Your task to perform on an android device: Search for sushi restaurants on Maps Image 0: 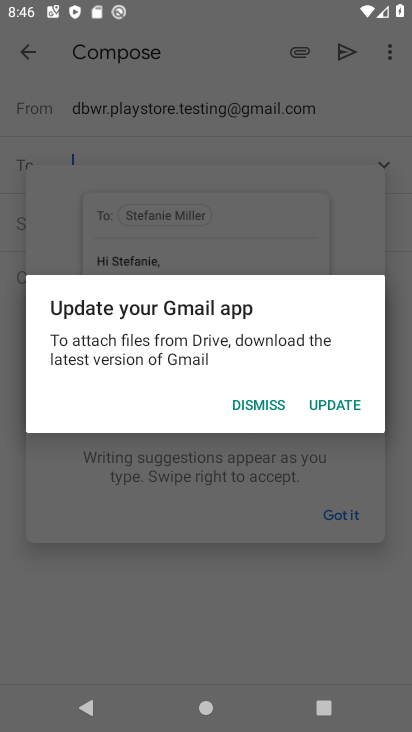
Step 0: press home button
Your task to perform on an android device: Search for sushi restaurants on Maps Image 1: 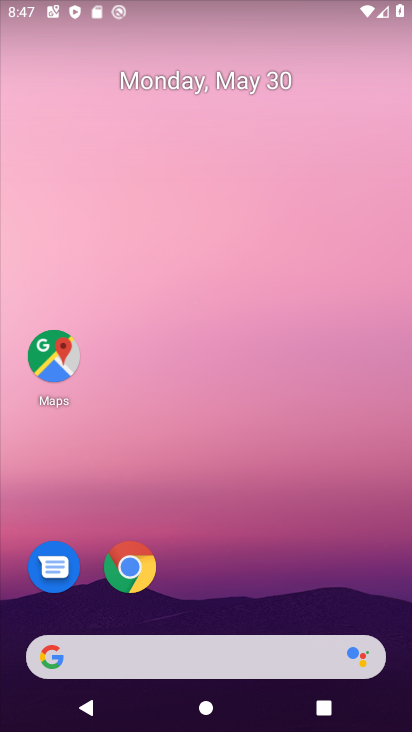
Step 1: drag from (241, 598) to (206, 162)
Your task to perform on an android device: Search for sushi restaurants on Maps Image 2: 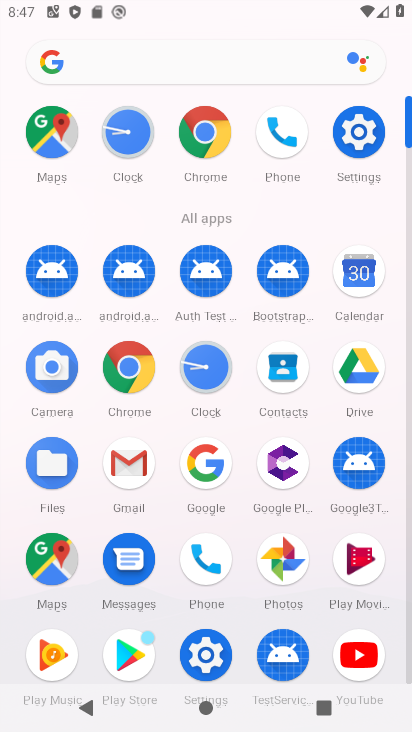
Step 2: click (49, 145)
Your task to perform on an android device: Search for sushi restaurants on Maps Image 3: 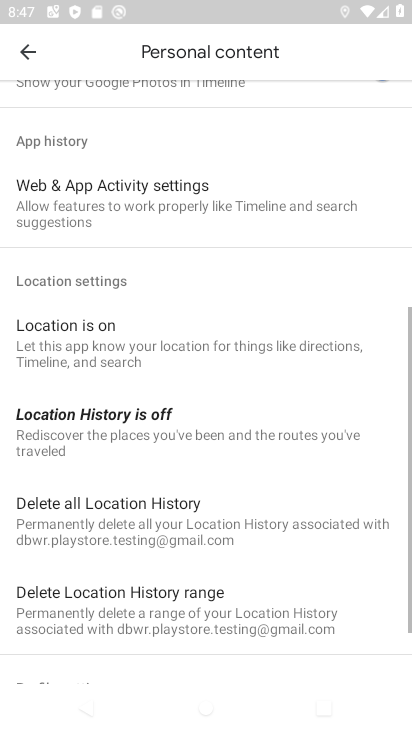
Step 3: click (19, 45)
Your task to perform on an android device: Search for sushi restaurants on Maps Image 4: 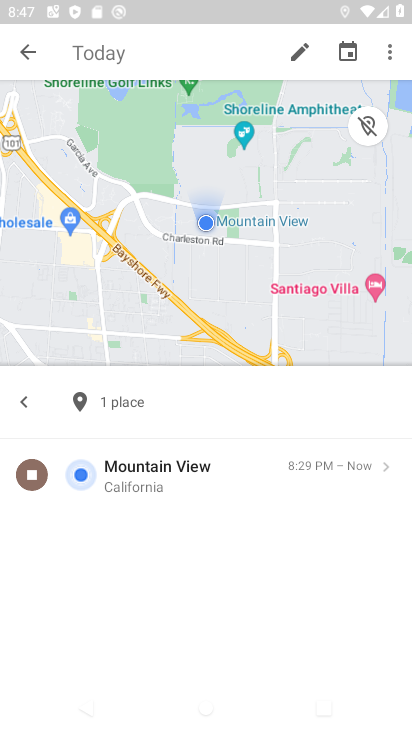
Step 4: click (17, 61)
Your task to perform on an android device: Search for sushi restaurants on Maps Image 5: 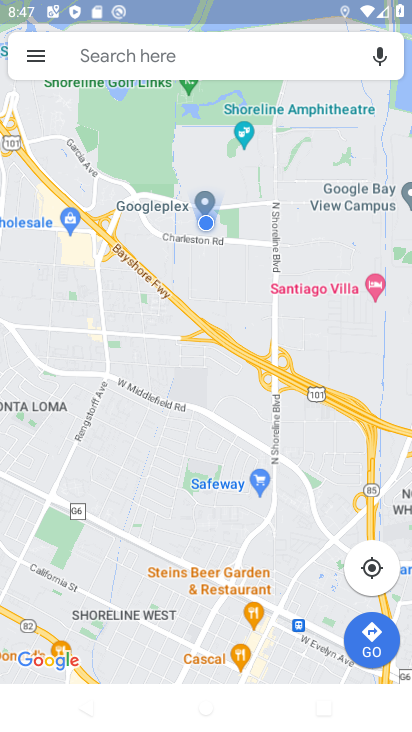
Step 5: click (79, 66)
Your task to perform on an android device: Search for sushi restaurants on Maps Image 6: 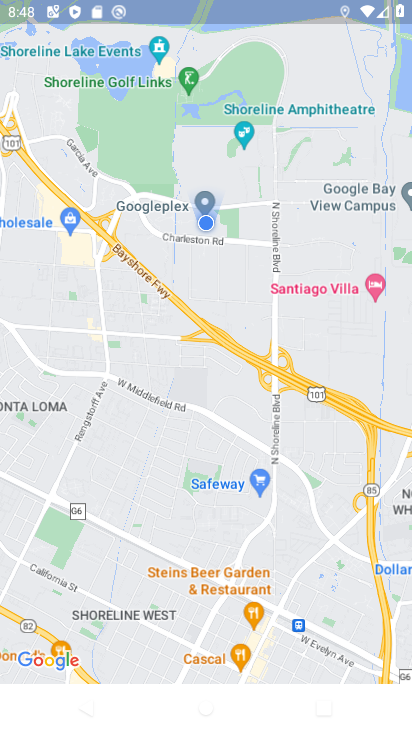
Step 6: press back button
Your task to perform on an android device: Search for sushi restaurants on Maps Image 7: 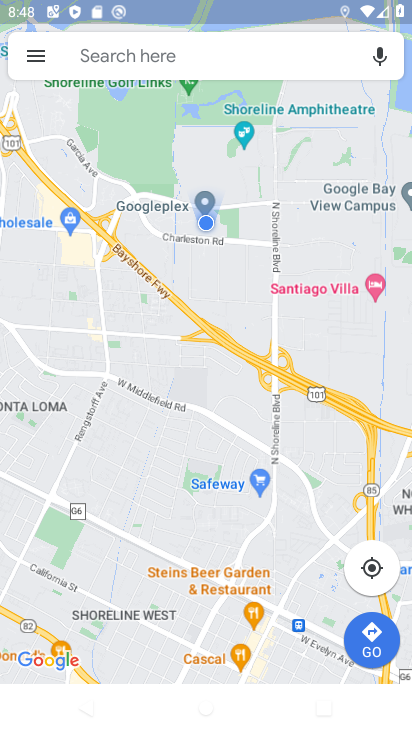
Step 7: click (183, 45)
Your task to perform on an android device: Search for sushi restaurants on Maps Image 8: 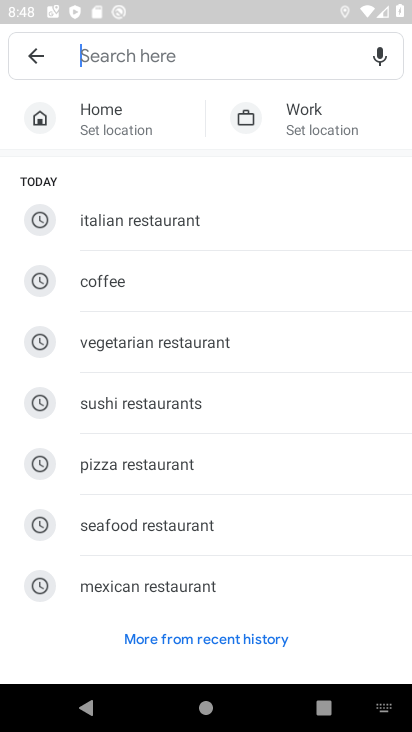
Step 8: click (161, 402)
Your task to perform on an android device: Search for sushi restaurants on Maps Image 9: 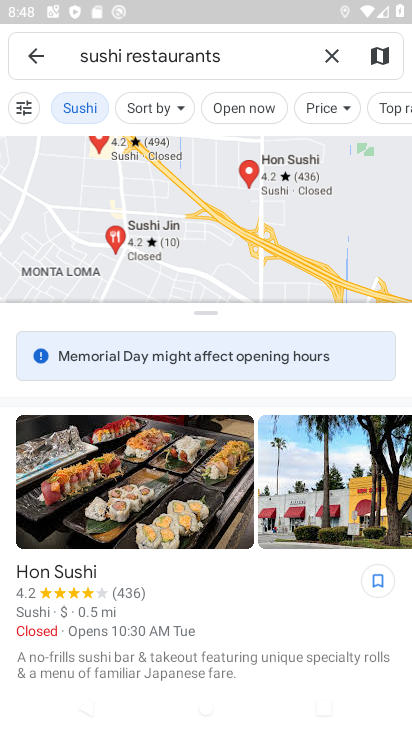
Step 9: task complete